Your task to perform on an android device: toggle airplane mode Image 0: 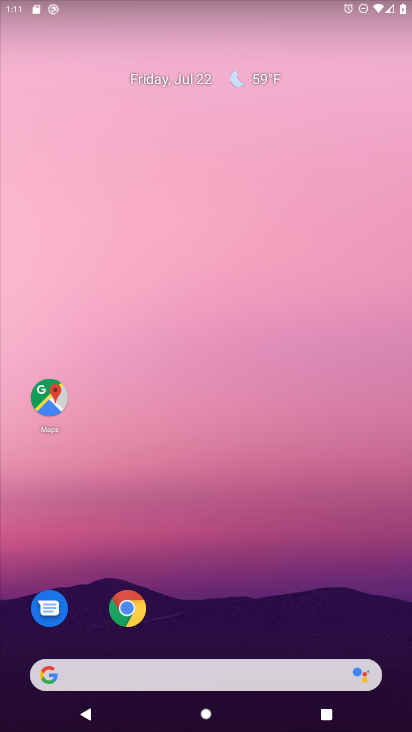
Step 0: drag from (325, 588) to (163, 45)
Your task to perform on an android device: toggle airplane mode Image 1: 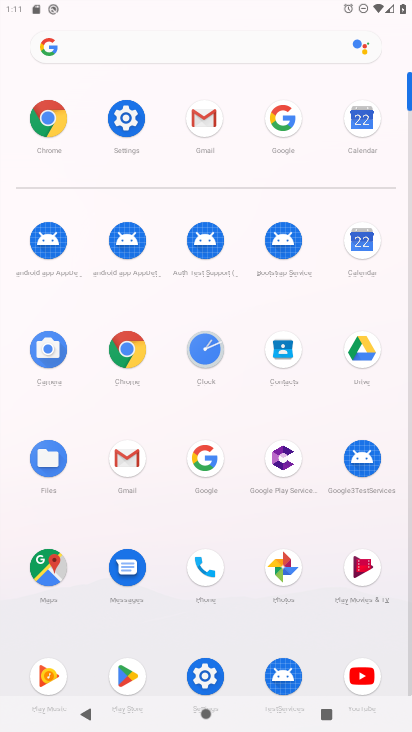
Step 1: drag from (254, 8) to (248, 547)
Your task to perform on an android device: toggle airplane mode Image 2: 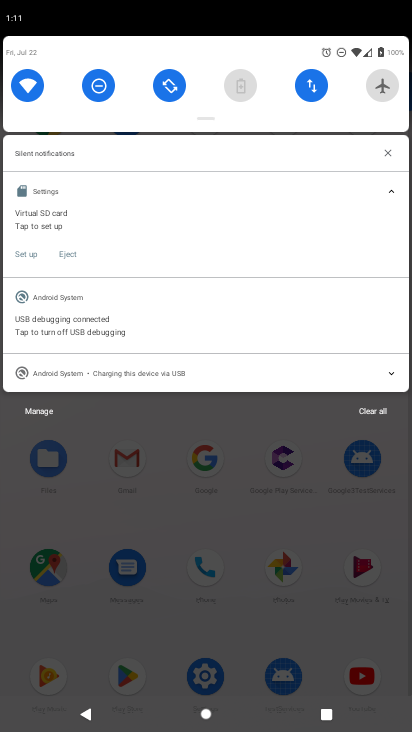
Step 2: click (382, 78)
Your task to perform on an android device: toggle airplane mode Image 3: 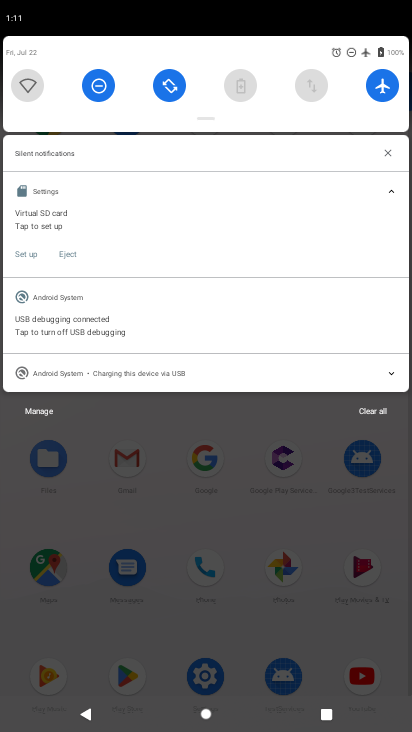
Step 3: task complete